Your task to perform on an android device: change notifications settings Image 0: 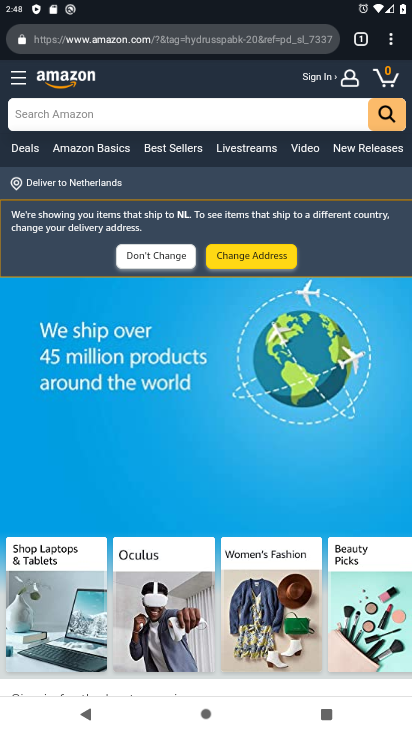
Step 0: press home button
Your task to perform on an android device: change notifications settings Image 1: 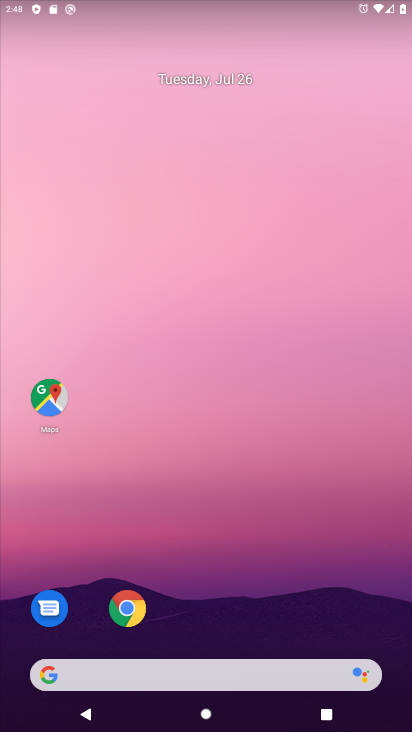
Step 1: drag from (285, 623) to (200, 31)
Your task to perform on an android device: change notifications settings Image 2: 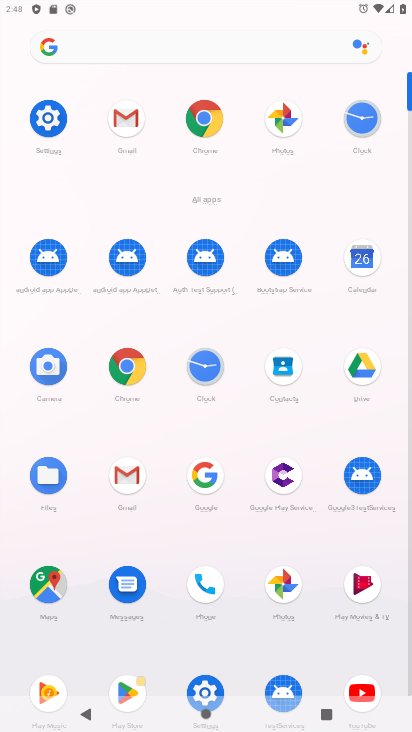
Step 2: click (35, 119)
Your task to perform on an android device: change notifications settings Image 3: 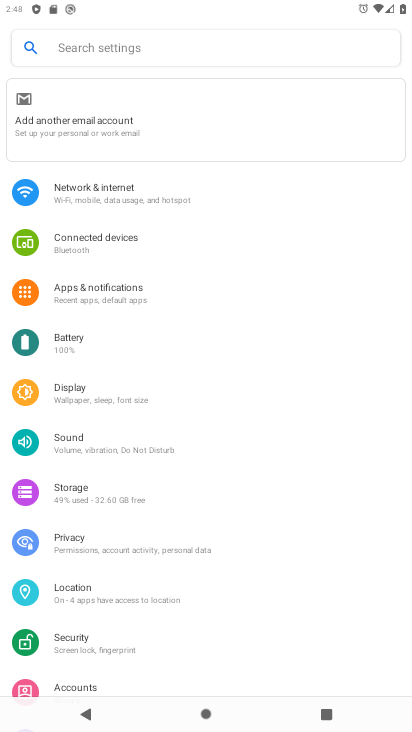
Step 3: click (90, 300)
Your task to perform on an android device: change notifications settings Image 4: 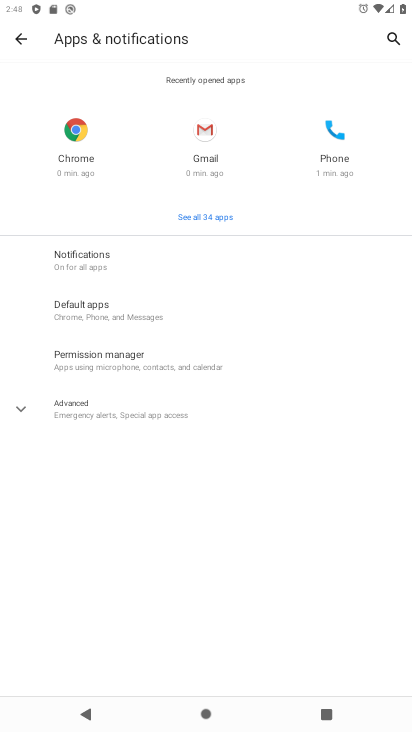
Step 4: click (91, 255)
Your task to perform on an android device: change notifications settings Image 5: 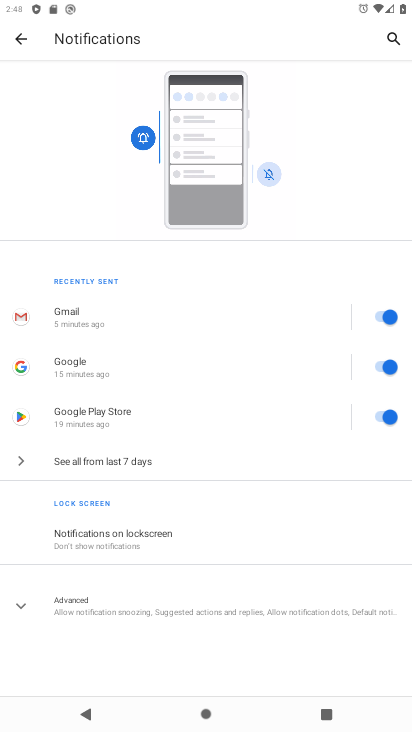
Step 5: click (175, 461)
Your task to perform on an android device: change notifications settings Image 6: 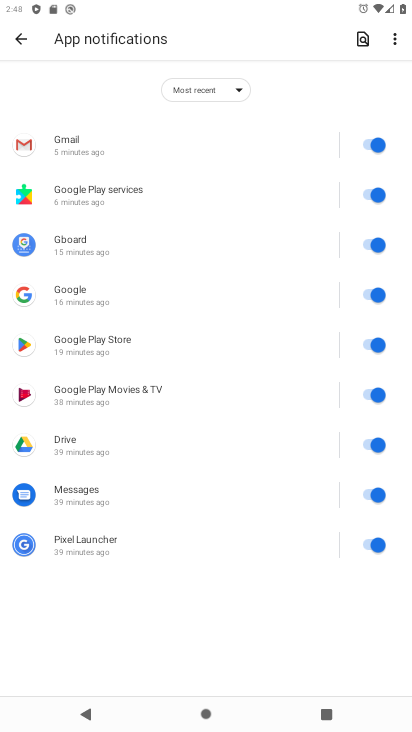
Step 6: click (373, 142)
Your task to perform on an android device: change notifications settings Image 7: 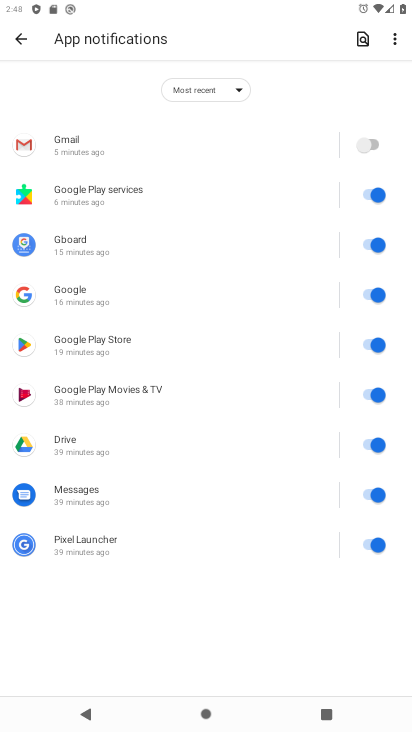
Step 7: click (374, 198)
Your task to perform on an android device: change notifications settings Image 8: 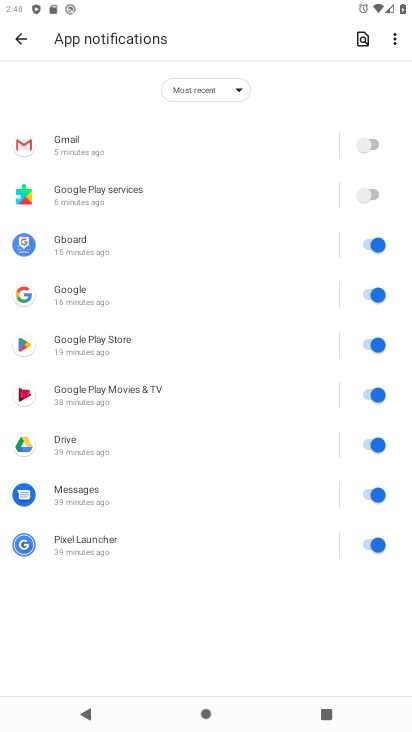
Step 8: click (369, 252)
Your task to perform on an android device: change notifications settings Image 9: 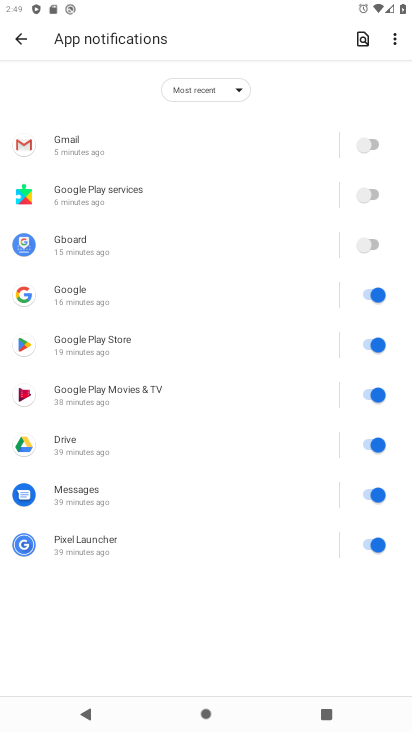
Step 9: click (374, 309)
Your task to perform on an android device: change notifications settings Image 10: 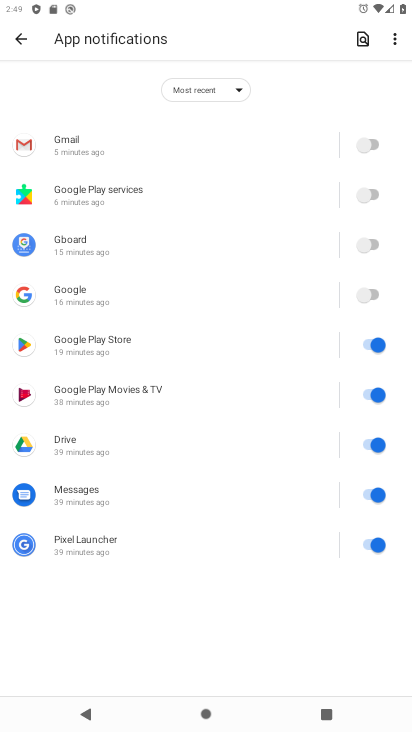
Step 10: click (373, 352)
Your task to perform on an android device: change notifications settings Image 11: 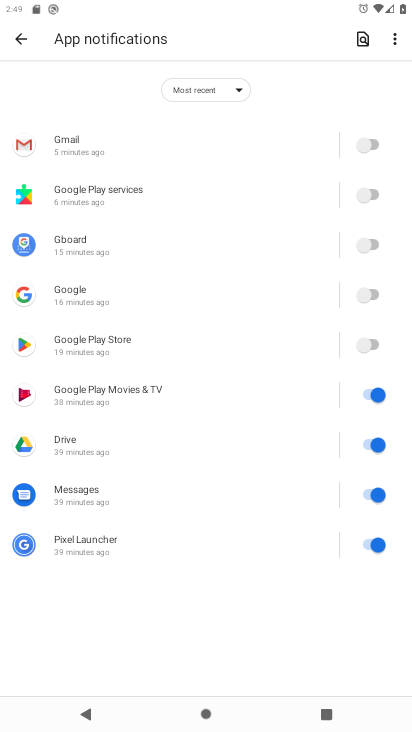
Step 11: click (373, 397)
Your task to perform on an android device: change notifications settings Image 12: 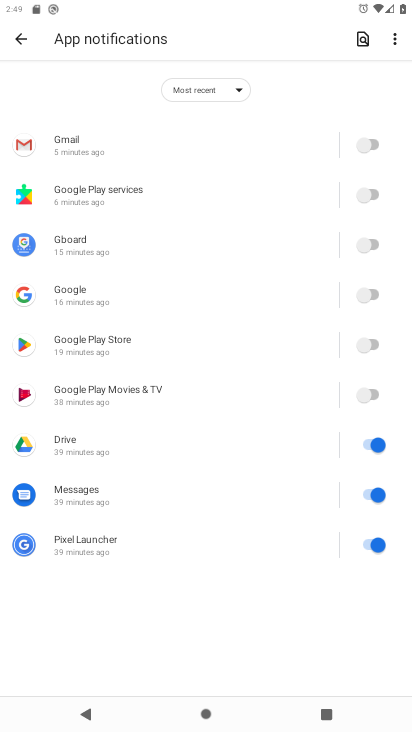
Step 12: click (373, 449)
Your task to perform on an android device: change notifications settings Image 13: 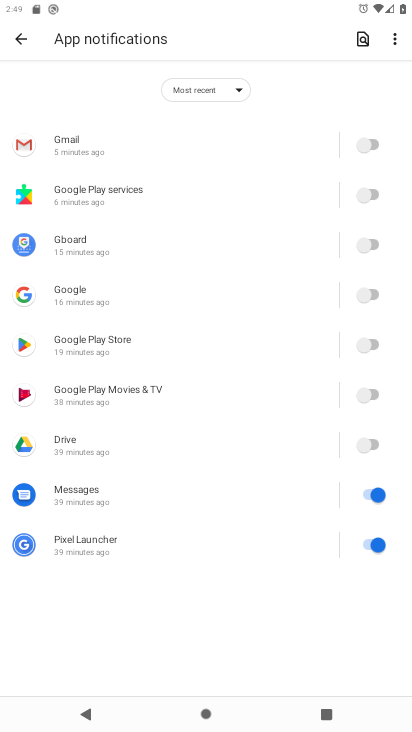
Step 13: click (372, 494)
Your task to perform on an android device: change notifications settings Image 14: 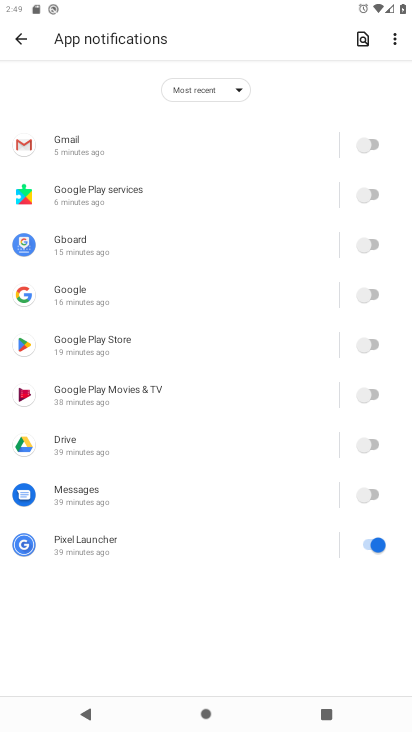
Step 14: click (368, 543)
Your task to perform on an android device: change notifications settings Image 15: 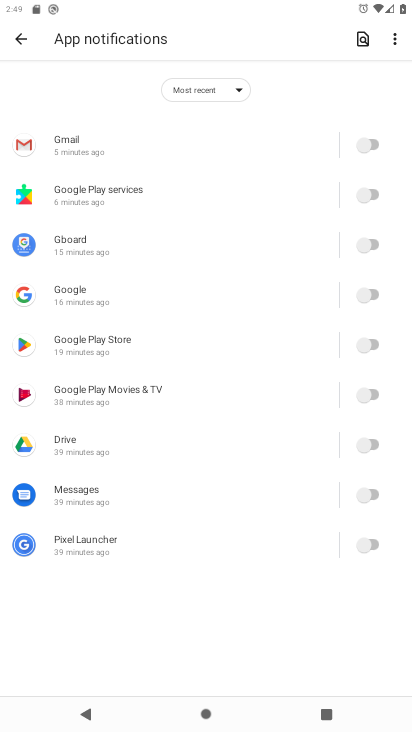
Step 15: click (25, 39)
Your task to perform on an android device: change notifications settings Image 16: 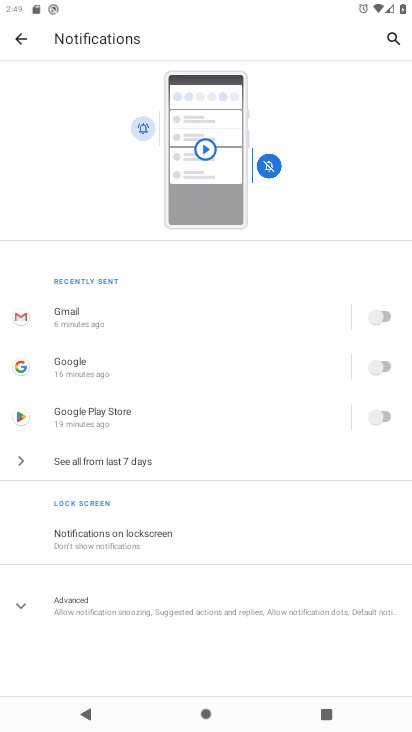
Step 16: click (85, 542)
Your task to perform on an android device: change notifications settings Image 17: 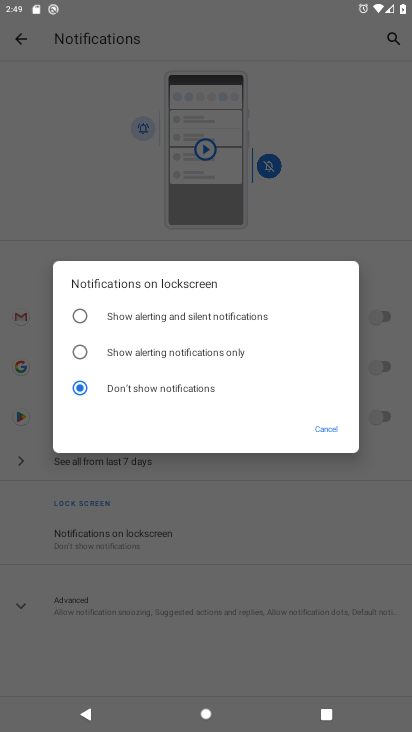
Step 17: click (200, 317)
Your task to perform on an android device: change notifications settings Image 18: 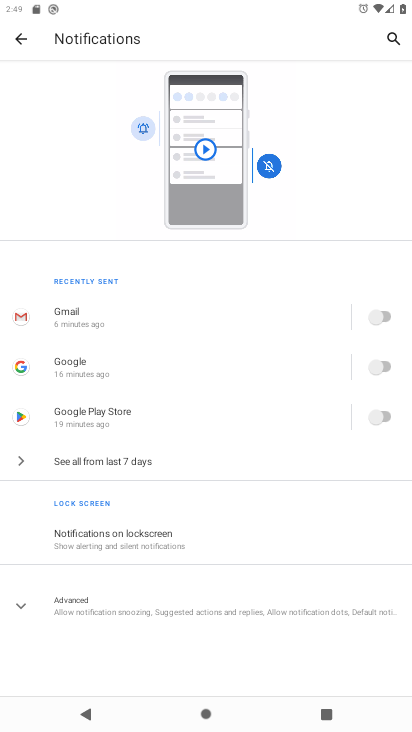
Step 18: click (86, 614)
Your task to perform on an android device: change notifications settings Image 19: 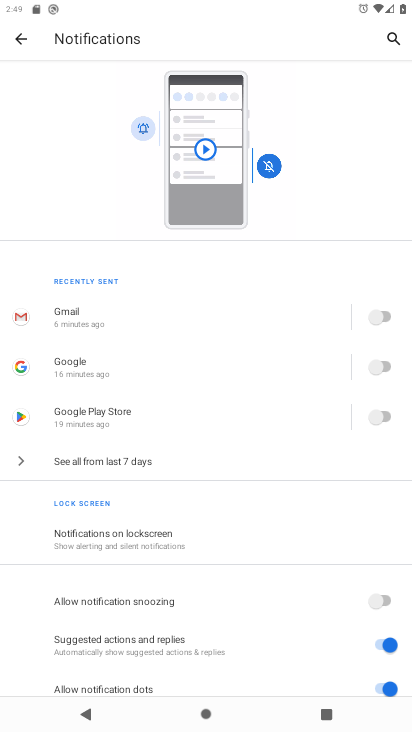
Step 19: click (376, 604)
Your task to perform on an android device: change notifications settings Image 20: 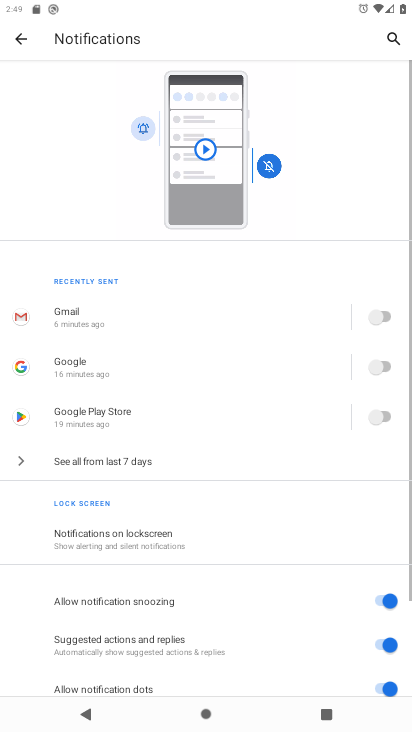
Step 20: click (392, 634)
Your task to perform on an android device: change notifications settings Image 21: 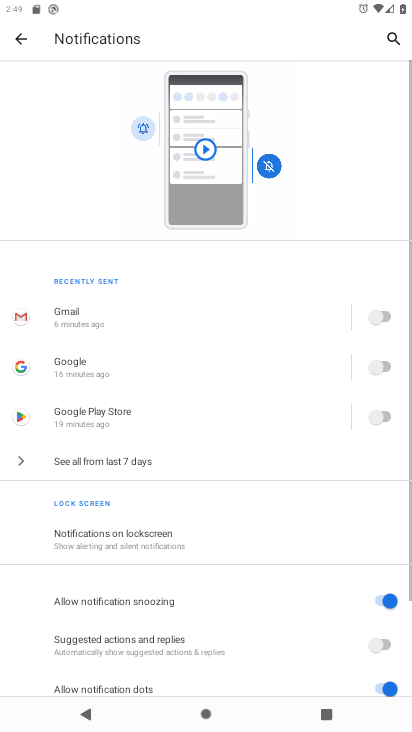
Step 21: click (392, 683)
Your task to perform on an android device: change notifications settings Image 22: 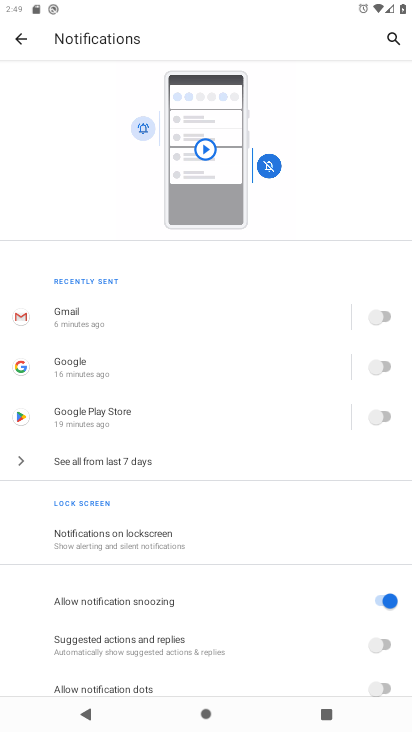
Step 22: task complete